Your task to perform on an android device: Open the phone app and click the voicemail tab. Image 0: 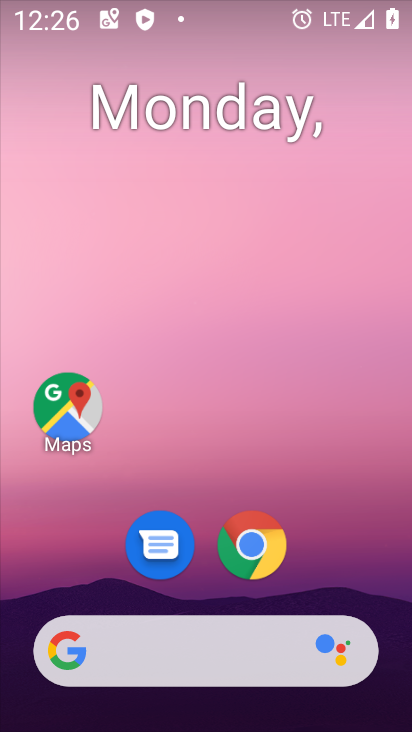
Step 0: drag from (359, 544) to (369, 140)
Your task to perform on an android device: Open the phone app and click the voicemail tab. Image 1: 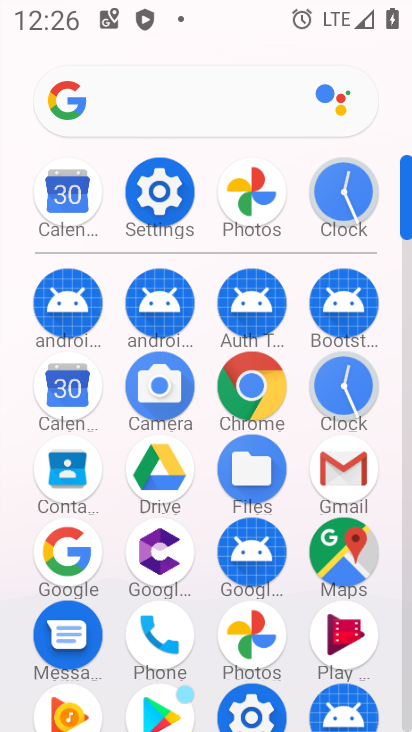
Step 1: drag from (198, 558) to (208, 300)
Your task to perform on an android device: Open the phone app and click the voicemail tab. Image 2: 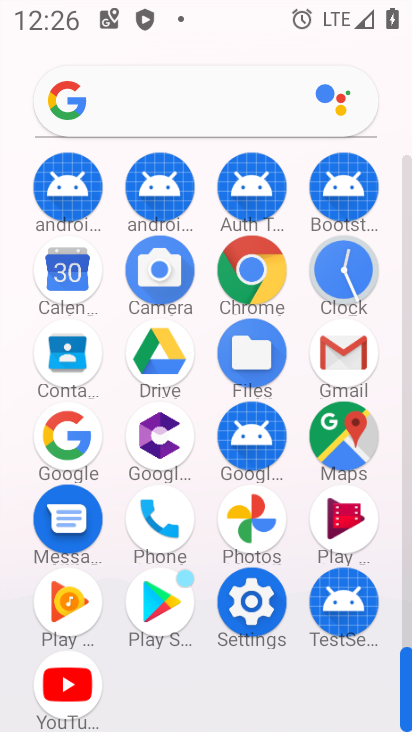
Step 2: click (173, 535)
Your task to perform on an android device: Open the phone app and click the voicemail tab. Image 3: 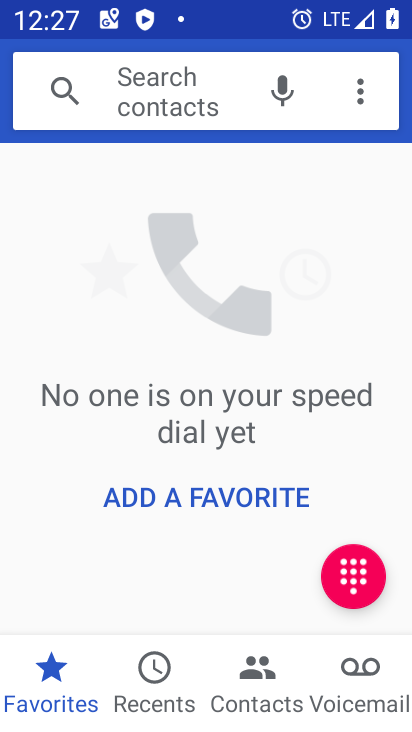
Step 3: click (348, 672)
Your task to perform on an android device: Open the phone app and click the voicemail tab. Image 4: 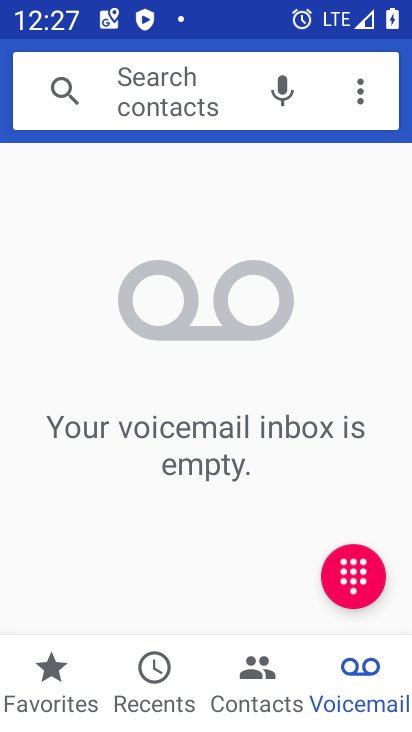
Step 4: task complete